Your task to perform on an android device: move an email to a new category in the gmail app Image 0: 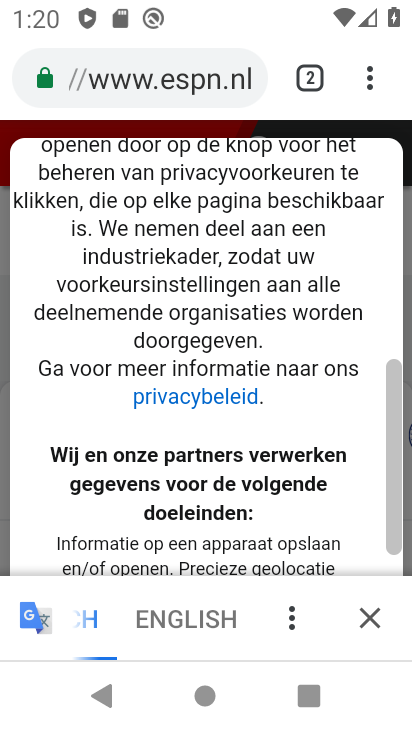
Step 0: press home button
Your task to perform on an android device: move an email to a new category in the gmail app Image 1: 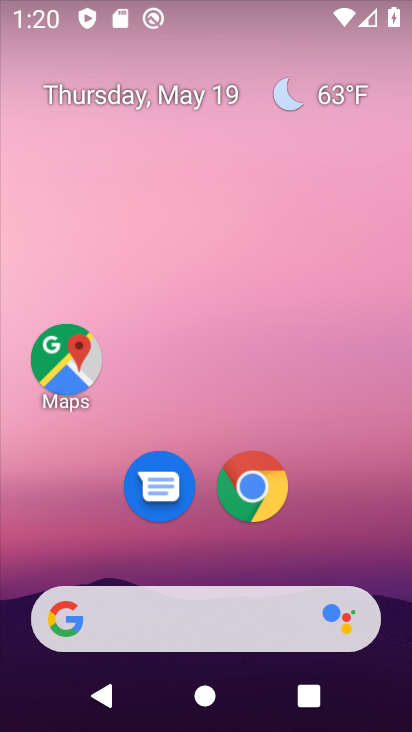
Step 1: drag from (332, 506) to (255, 27)
Your task to perform on an android device: move an email to a new category in the gmail app Image 2: 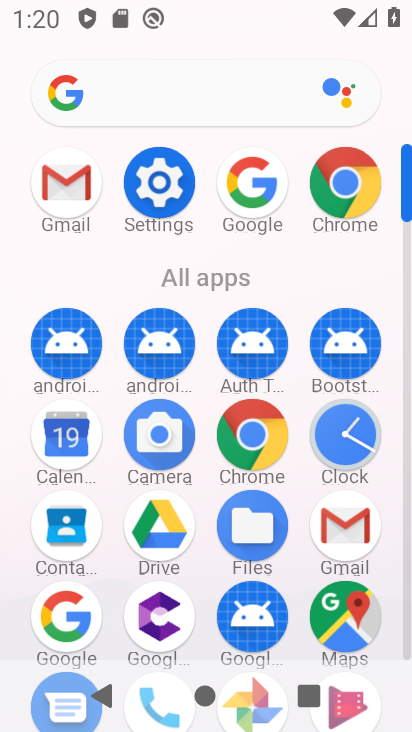
Step 2: click (346, 521)
Your task to perform on an android device: move an email to a new category in the gmail app Image 3: 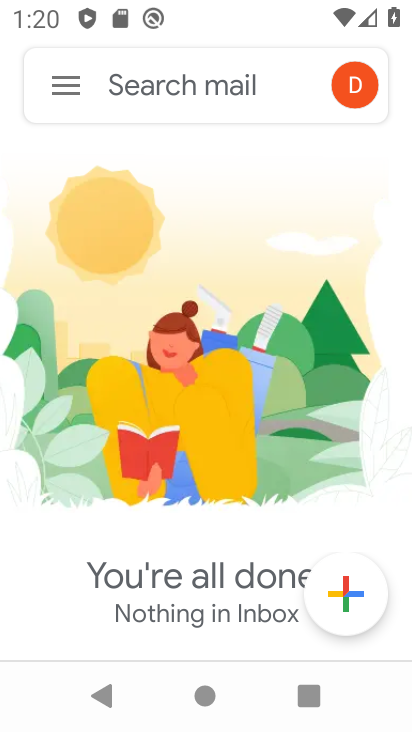
Step 3: click (57, 74)
Your task to perform on an android device: move an email to a new category in the gmail app Image 4: 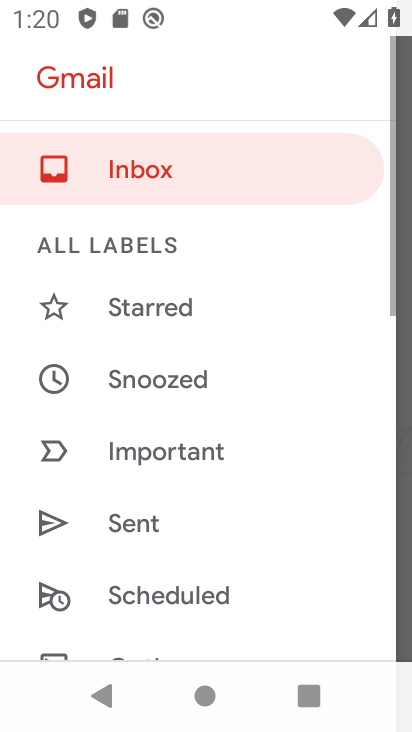
Step 4: drag from (219, 553) to (204, 188)
Your task to perform on an android device: move an email to a new category in the gmail app Image 5: 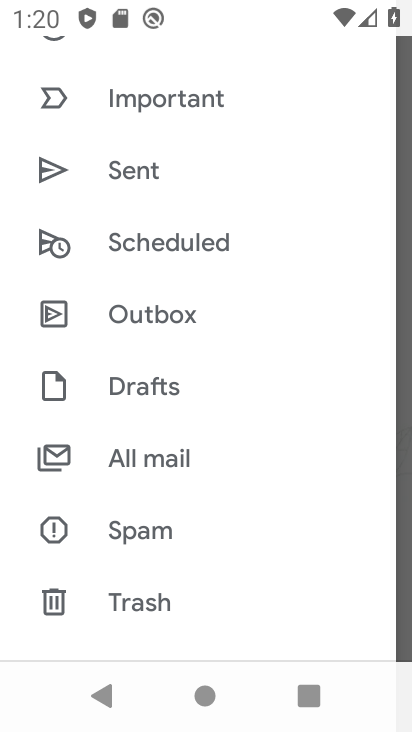
Step 5: drag from (207, 569) to (173, 218)
Your task to perform on an android device: move an email to a new category in the gmail app Image 6: 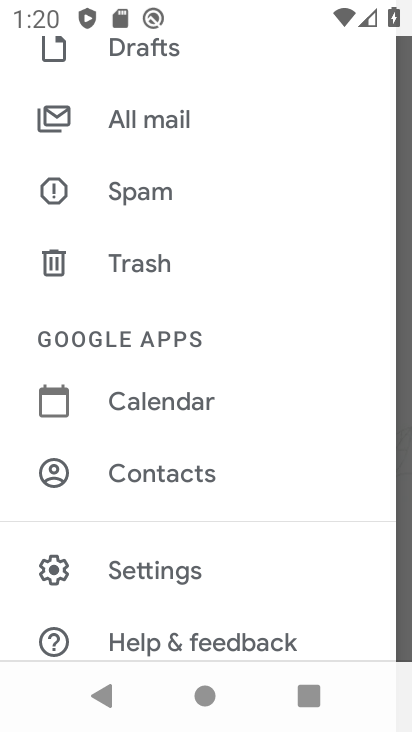
Step 6: click (178, 123)
Your task to perform on an android device: move an email to a new category in the gmail app Image 7: 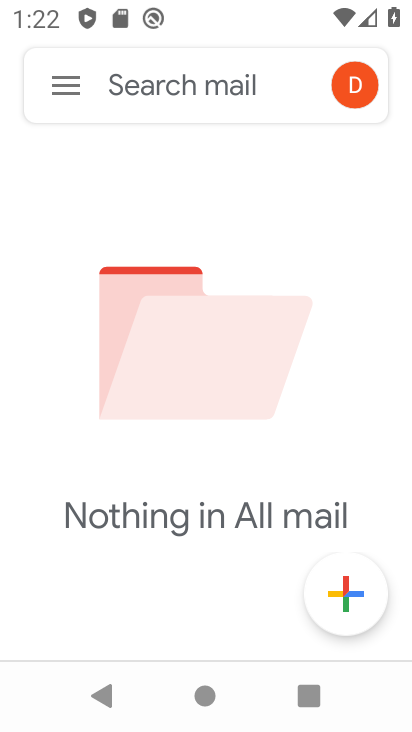
Step 7: task complete